Your task to perform on an android device: search for starred emails in the gmail app Image 0: 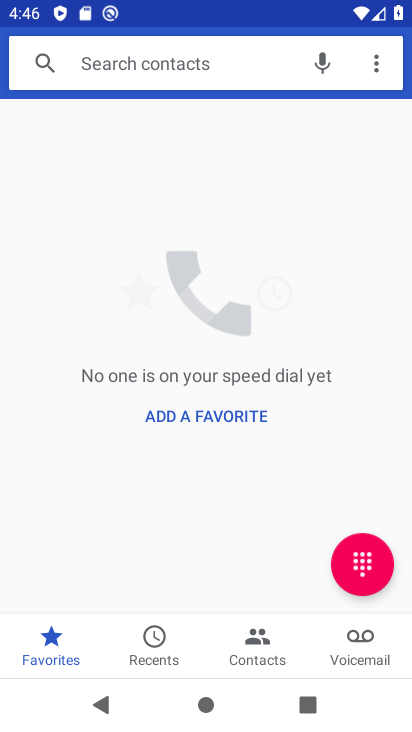
Step 0: press home button
Your task to perform on an android device: search for starred emails in the gmail app Image 1: 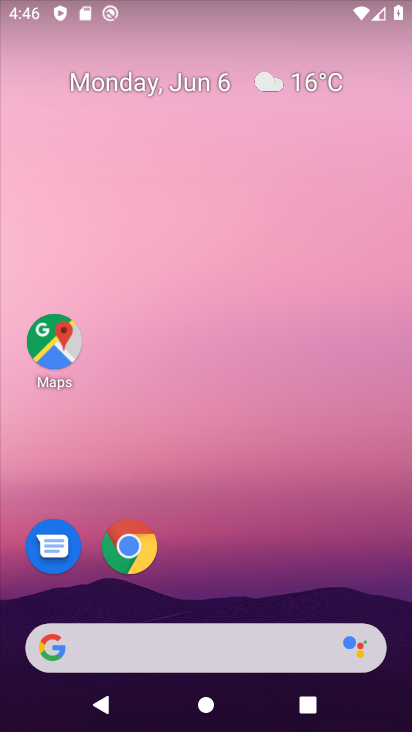
Step 1: drag from (182, 541) to (181, 224)
Your task to perform on an android device: search for starred emails in the gmail app Image 2: 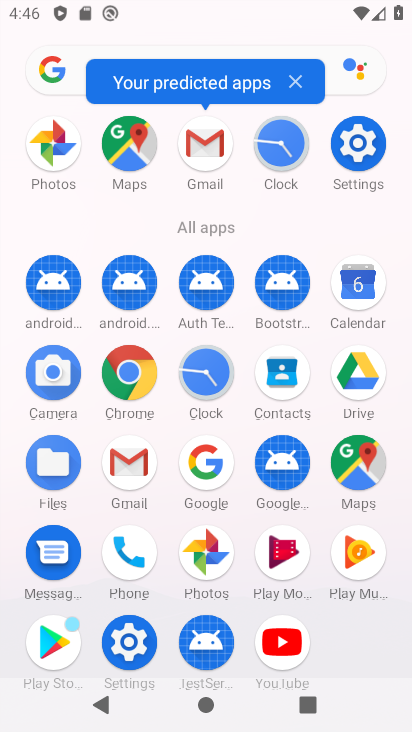
Step 2: click (205, 151)
Your task to perform on an android device: search for starred emails in the gmail app Image 3: 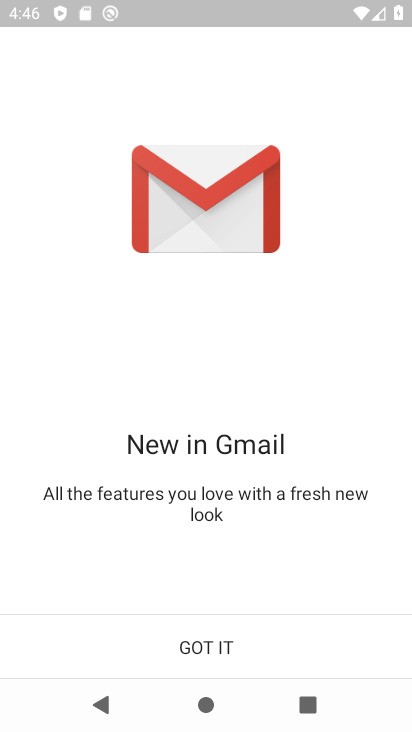
Step 3: click (225, 655)
Your task to perform on an android device: search for starred emails in the gmail app Image 4: 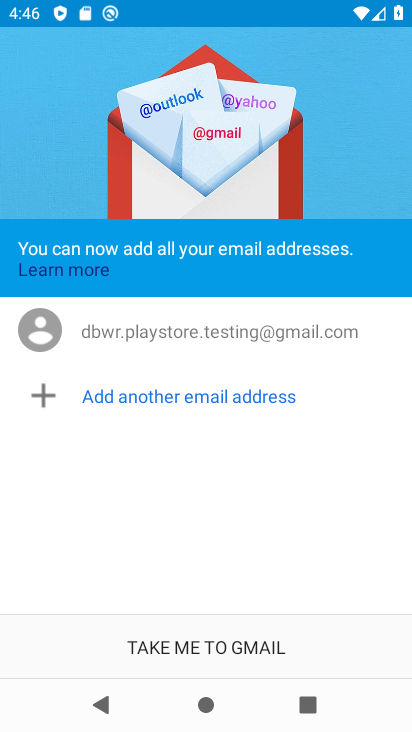
Step 4: click (222, 641)
Your task to perform on an android device: search for starred emails in the gmail app Image 5: 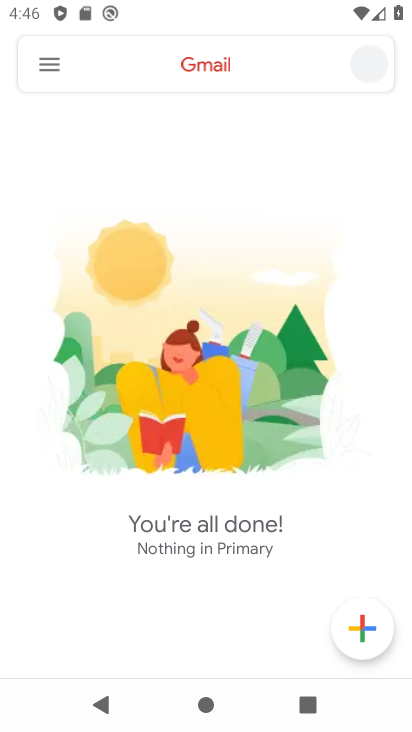
Step 5: click (46, 66)
Your task to perform on an android device: search for starred emails in the gmail app Image 6: 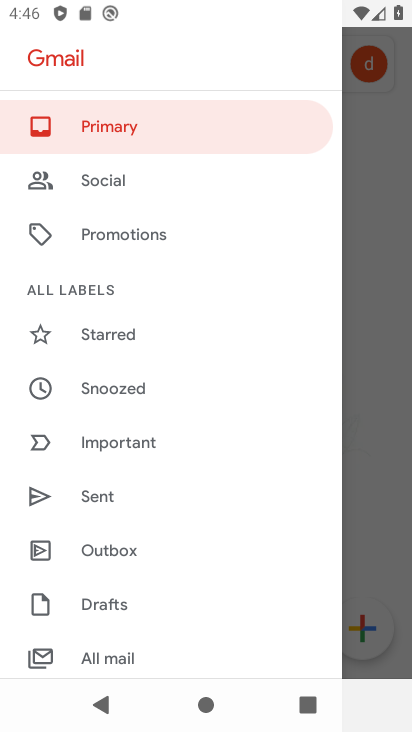
Step 6: drag from (94, 607) to (131, 264)
Your task to perform on an android device: search for starred emails in the gmail app Image 7: 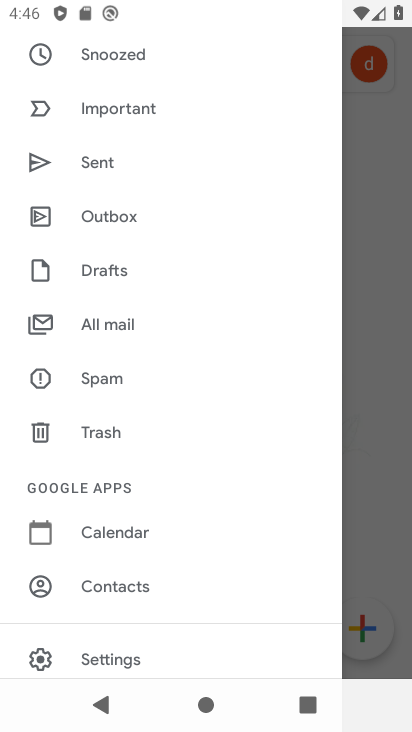
Step 7: click (103, 660)
Your task to perform on an android device: search for starred emails in the gmail app Image 8: 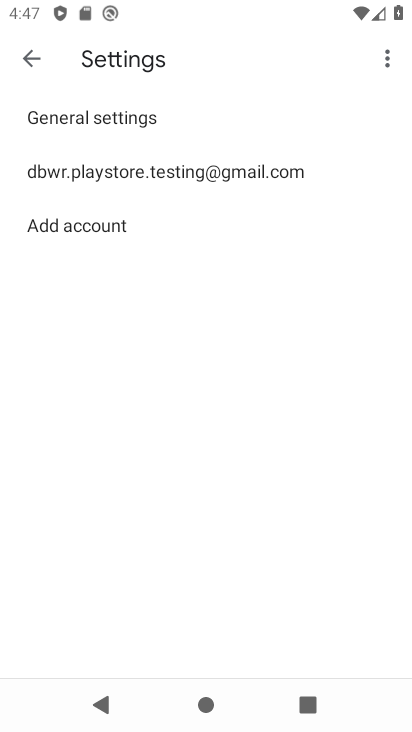
Step 8: click (25, 55)
Your task to perform on an android device: search for starred emails in the gmail app Image 9: 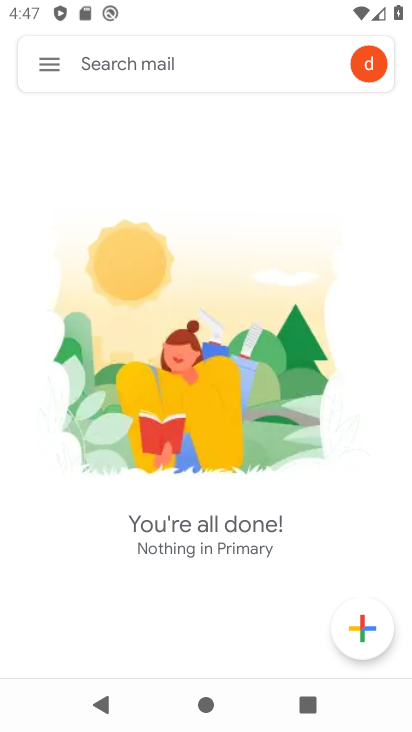
Step 9: click (51, 54)
Your task to perform on an android device: search for starred emails in the gmail app Image 10: 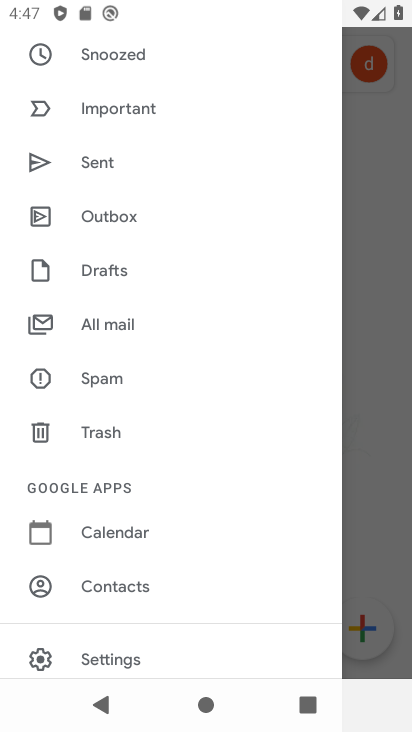
Step 10: drag from (136, 120) to (152, 538)
Your task to perform on an android device: search for starred emails in the gmail app Image 11: 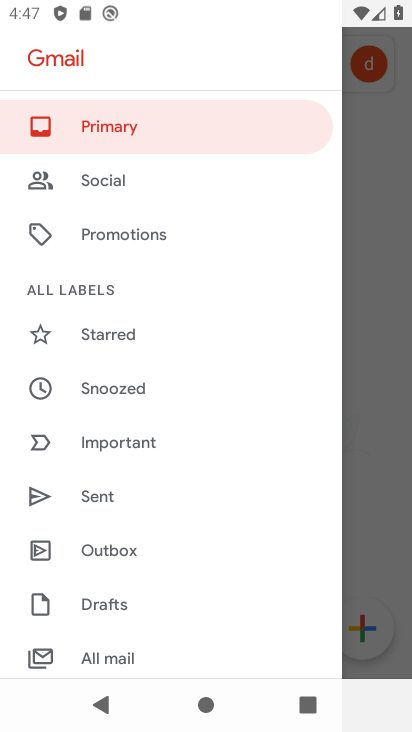
Step 11: drag from (121, 587) to (121, 277)
Your task to perform on an android device: search for starred emails in the gmail app Image 12: 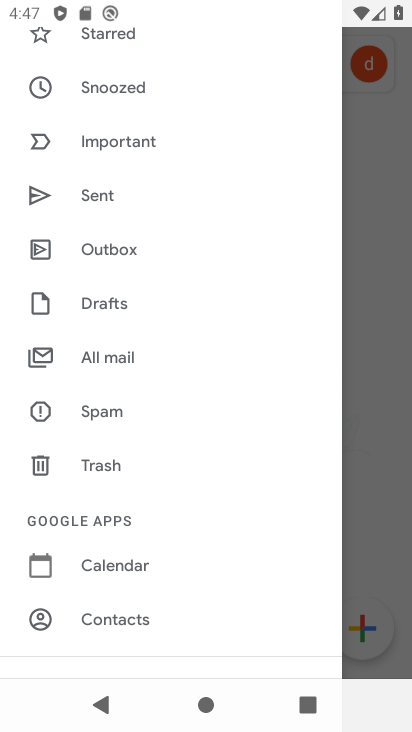
Step 12: drag from (134, 260) to (165, 545)
Your task to perform on an android device: search for starred emails in the gmail app Image 13: 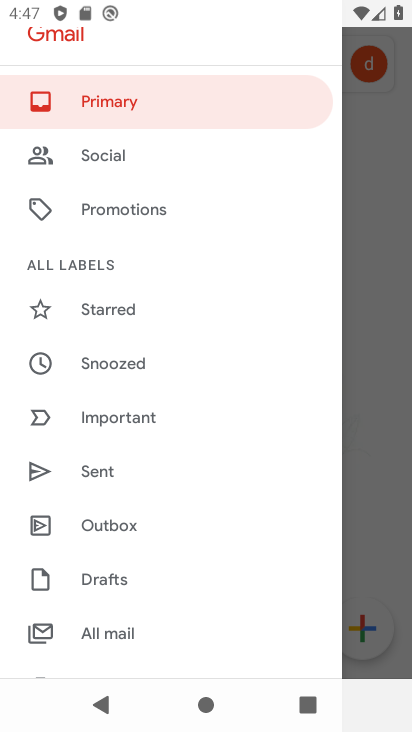
Step 13: click (97, 316)
Your task to perform on an android device: search for starred emails in the gmail app Image 14: 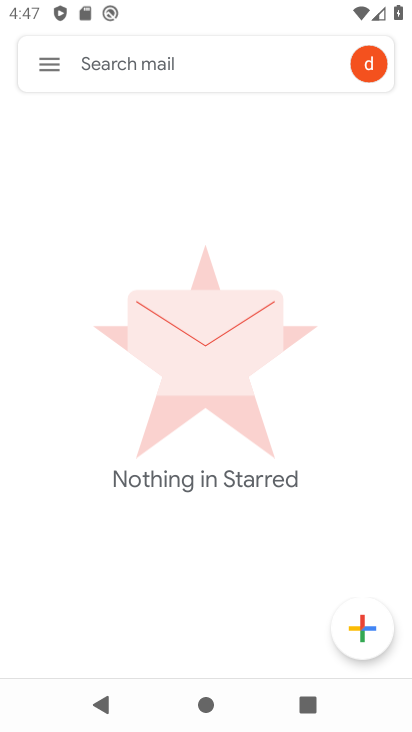
Step 14: task complete